Your task to perform on an android device: change the upload size in google photos Image 0: 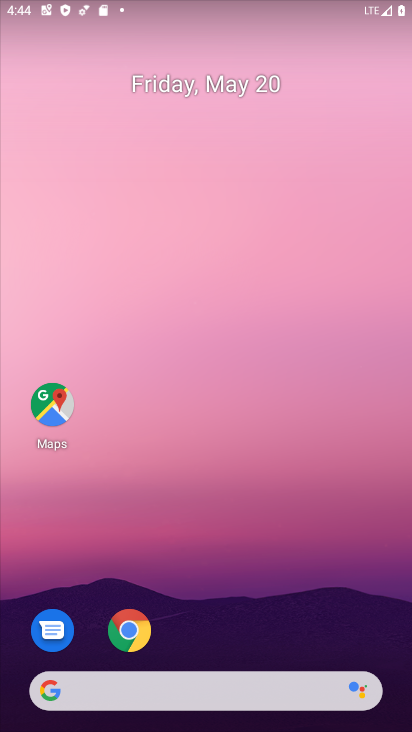
Step 0: drag from (294, 585) to (148, 0)
Your task to perform on an android device: change the upload size in google photos Image 1: 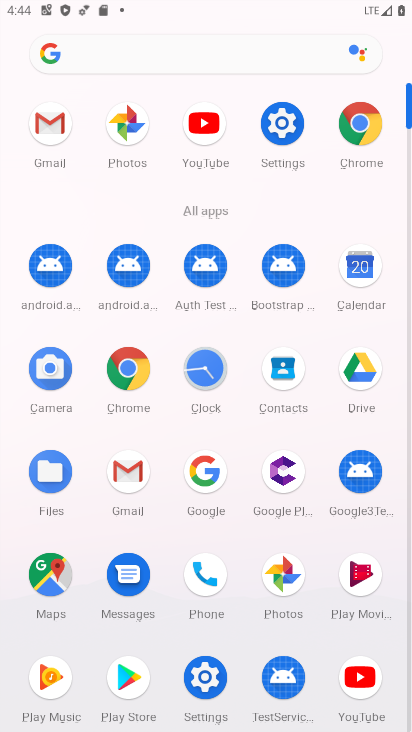
Step 1: click (128, 118)
Your task to perform on an android device: change the upload size in google photos Image 2: 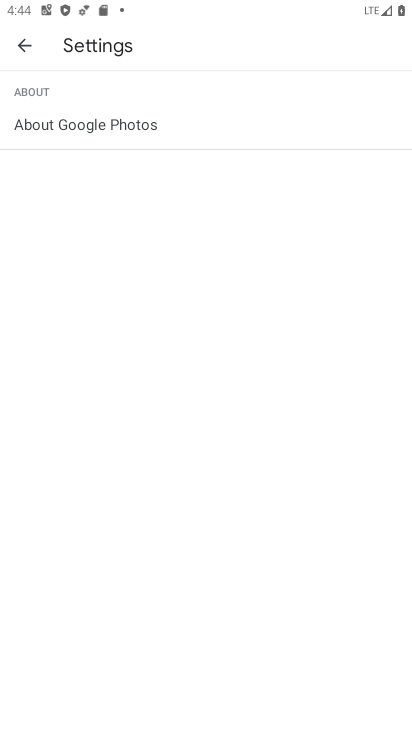
Step 2: click (28, 40)
Your task to perform on an android device: change the upload size in google photos Image 3: 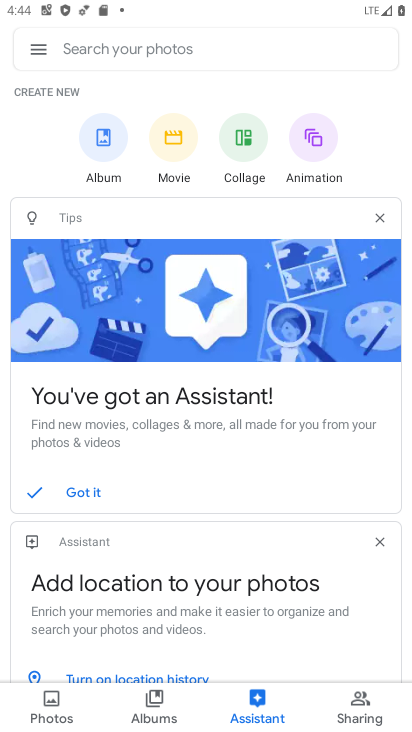
Step 3: click (31, 40)
Your task to perform on an android device: change the upload size in google photos Image 4: 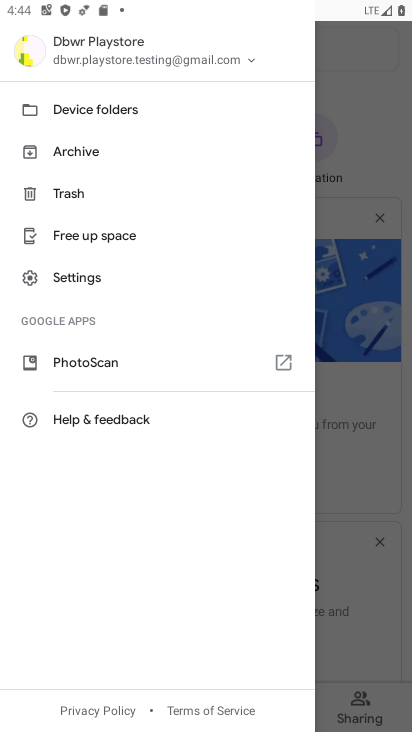
Step 4: click (102, 262)
Your task to perform on an android device: change the upload size in google photos Image 5: 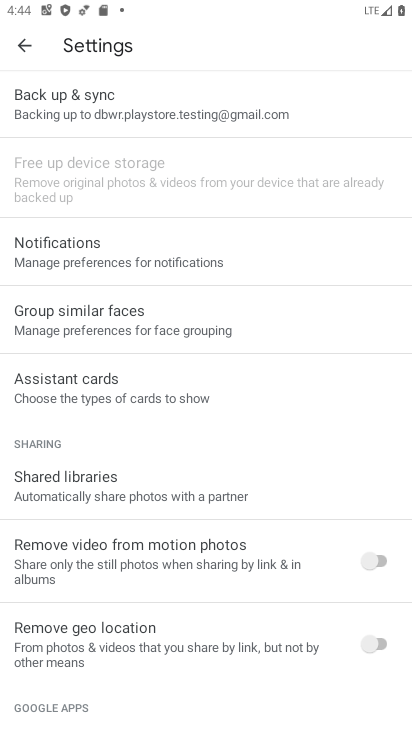
Step 5: click (114, 96)
Your task to perform on an android device: change the upload size in google photos Image 6: 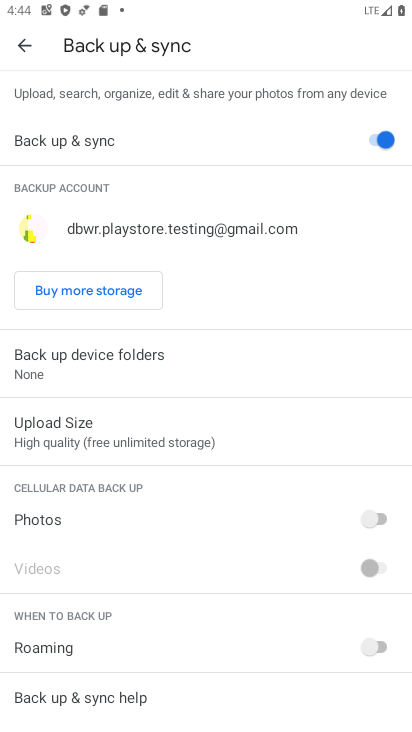
Step 6: click (122, 430)
Your task to perform on an android device: change the upload size in google photos Image 7: 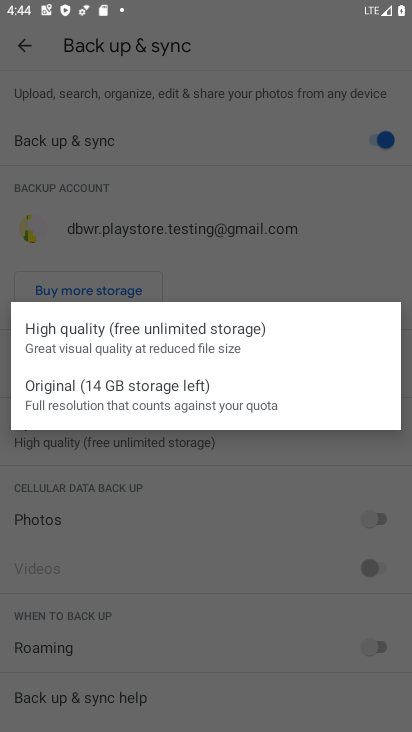
Step 7: click (125, 389)
Your task to perform on an android device: change the upload size in google photos Image 8: 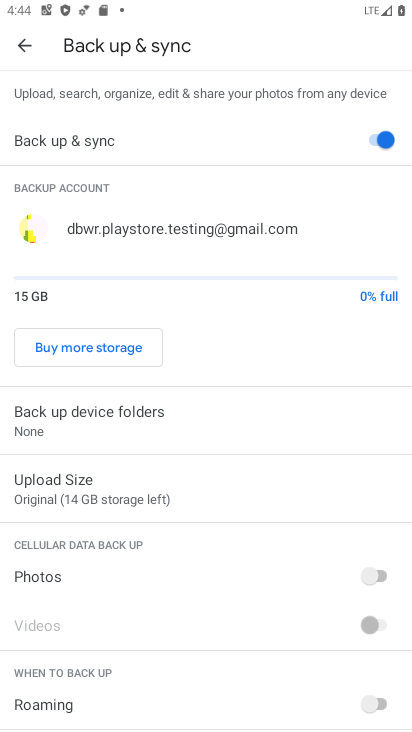
Step 8: task complete